Your task to perform on an android device: Open notification settings Image 0: 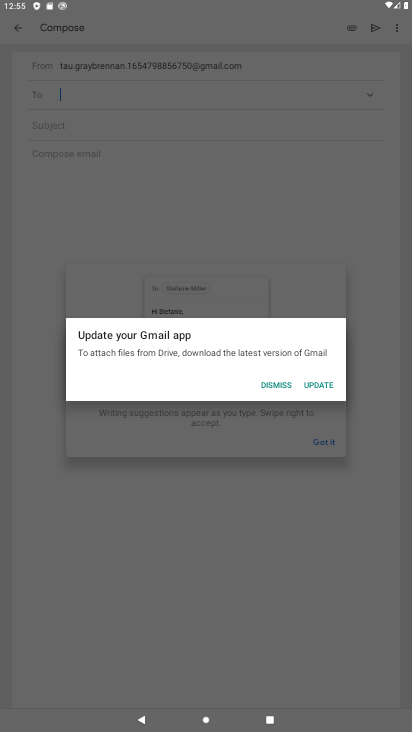
Step 0: press home button
Your task to perform on an android device: Open notification settings Image 1: 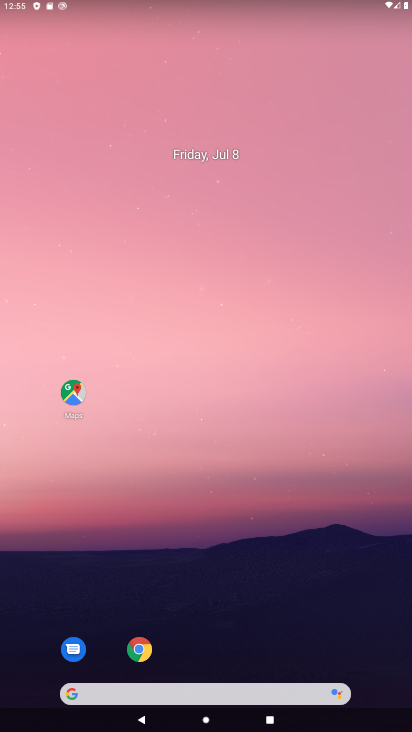
Step 1: drag from (260, 586) to (254, 142)
Your task to perform on an android device: Open notification settings Image 2: 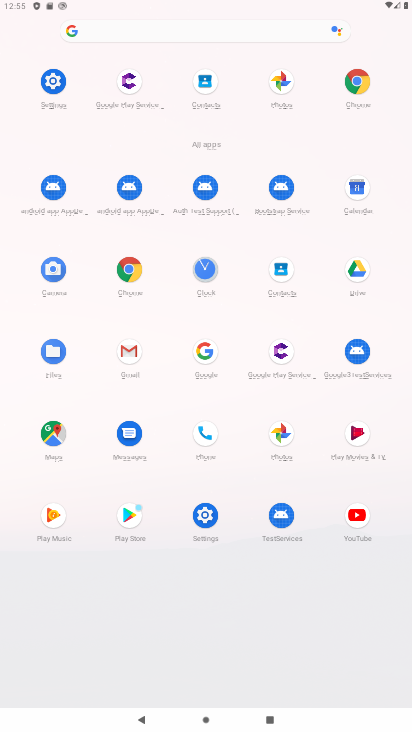
Step 2: click (55, 82)
Your task to perform on an android device: Open notification settings Image 3: 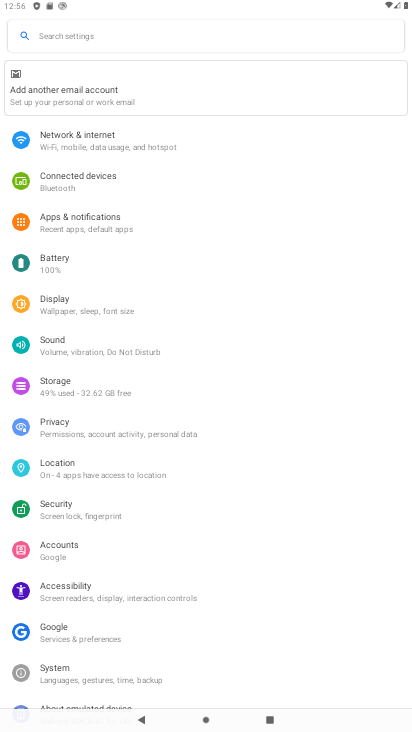
Step 3: click (93, 218)
Your task to perform on an android device: Open notification settings Image 4: 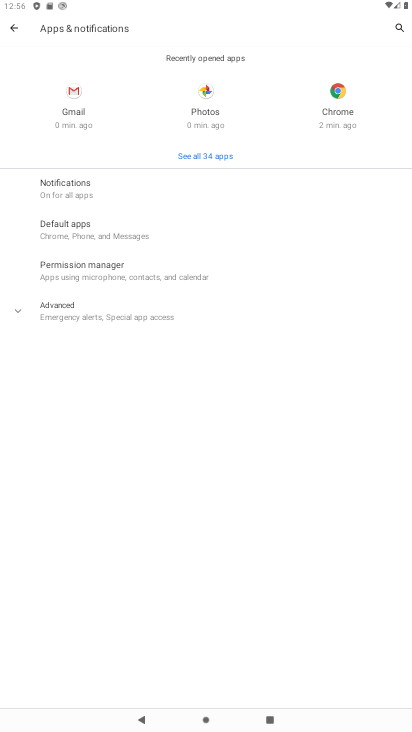
Step 4: click (83, 193)
Your task to perform on an android device: Open notification settings Image 5: 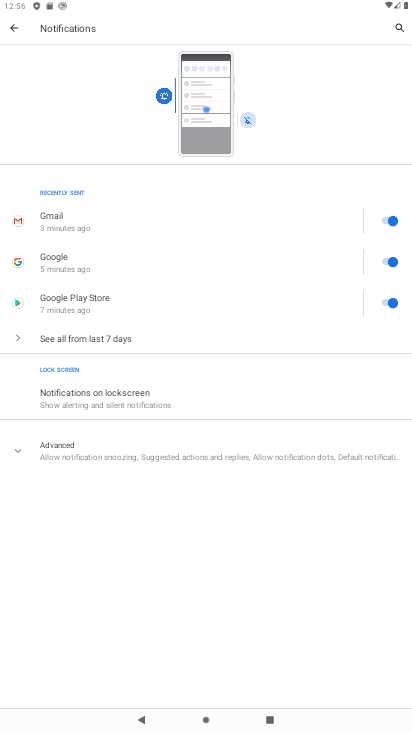
Step 5: task complete